Your task to perform on an android device: Go to Google maps Image 0: 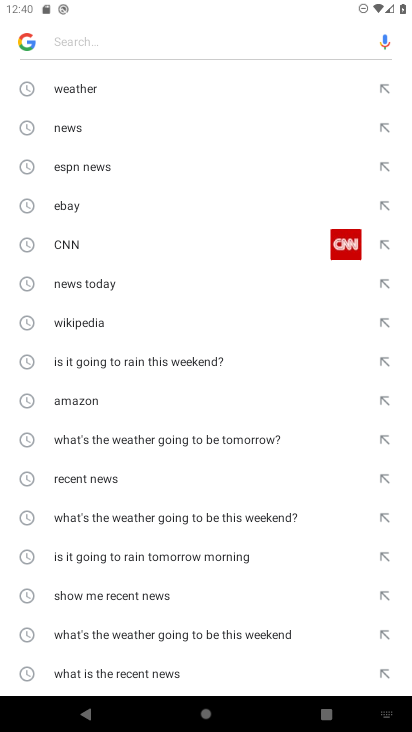
Step 0: press home button
Your task to perform on an android device: Go to Google maps Image 1: 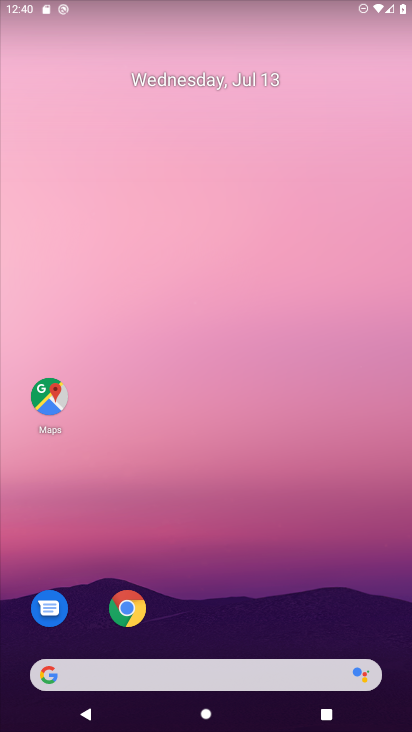
Step 1: click (38, 386)
Your task to perform on an android device: Go to Google maps Image 2: 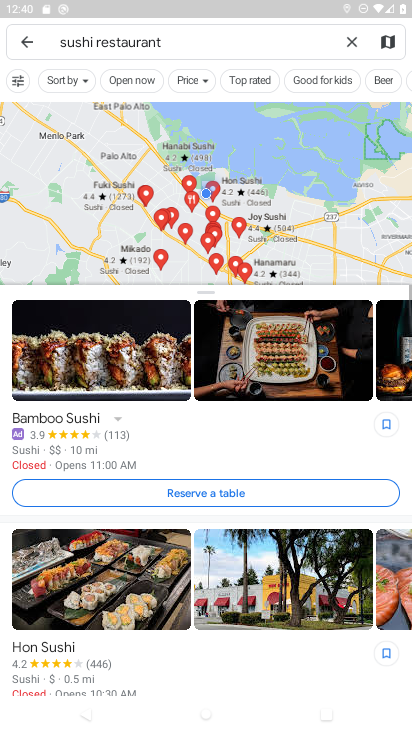
Step 2: task complete